Your task to perform on an android device: set the stopwatch Image 0: 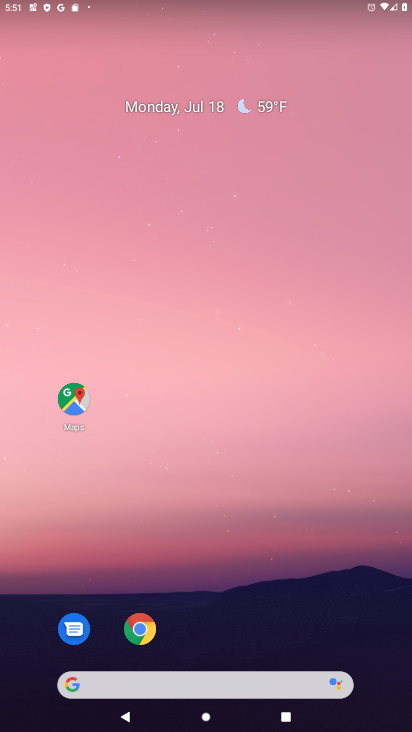
Step 0: drag from (298, 587) to (306, 101)
Your task to perform on an android device: set the stopwatch Image 1: 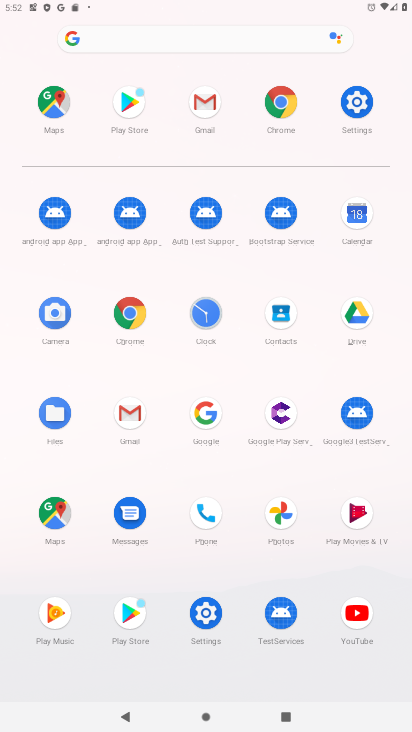
Step 1: click (208, 311)
Your task to perform on an android device: set the stopwatch Image 2: 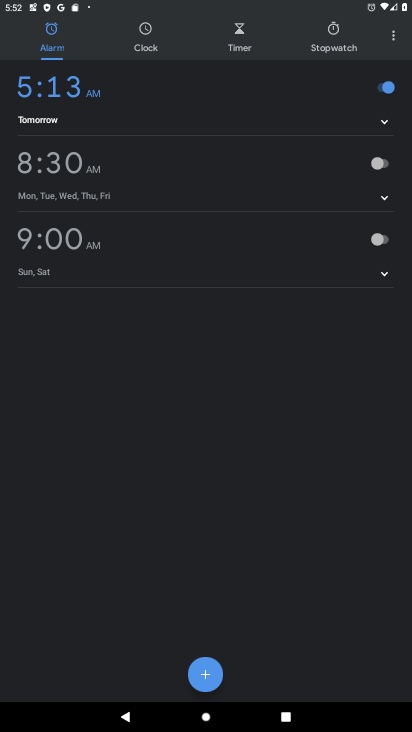
Step 2: click (338, 38)
Your task to perform on an android device: set the stopwatch Image 3: 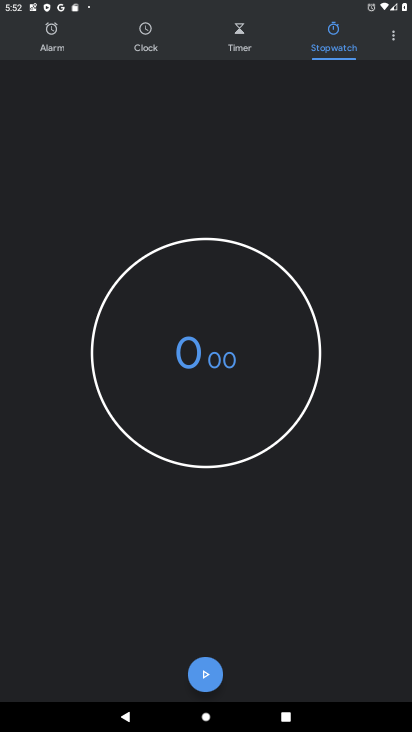
Step 3: click (200, 680)
Your task to perform on an android device: set the stopwatch Image 4: 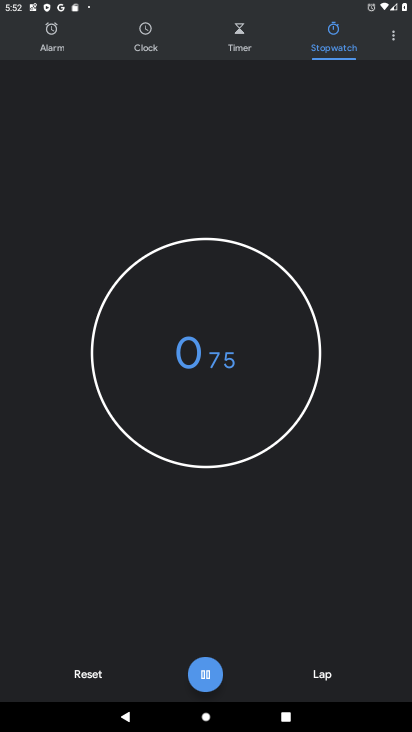
Step 4: click (200, 680)
Your task to perform on an android device: set the stopwatch Image 5: 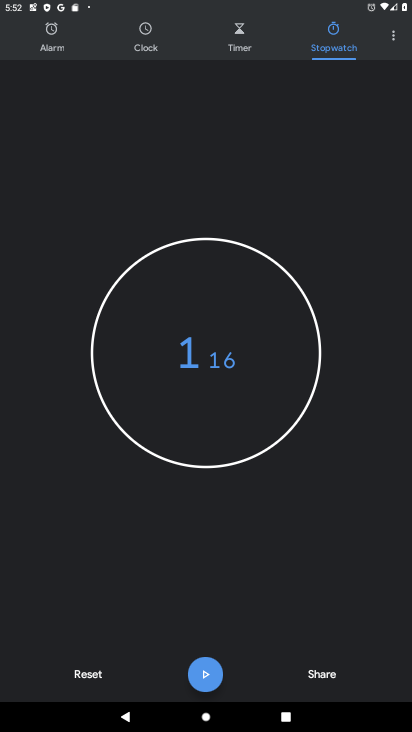
Step 5: task complete